Your task to perform on an android device: all mails in gmail Image 0: 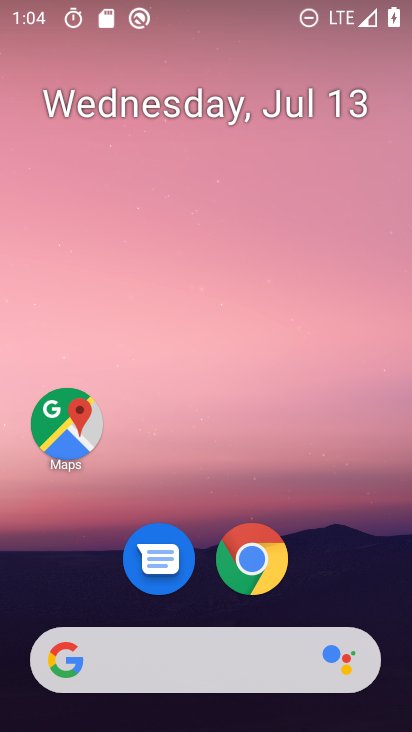
Step 0: drag from (180, 651) to (274, 290)
Your task to perform on an android device: all mails in gmail Image 1: 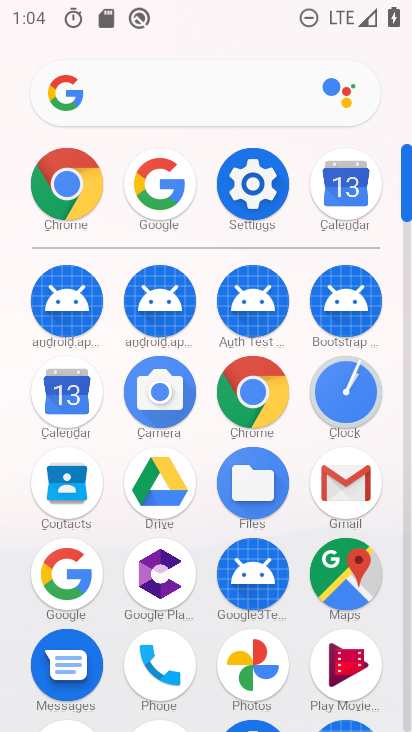
Step 1: click (358, 495)
Your task to perform on an android device: all mails in gmail Image 2: 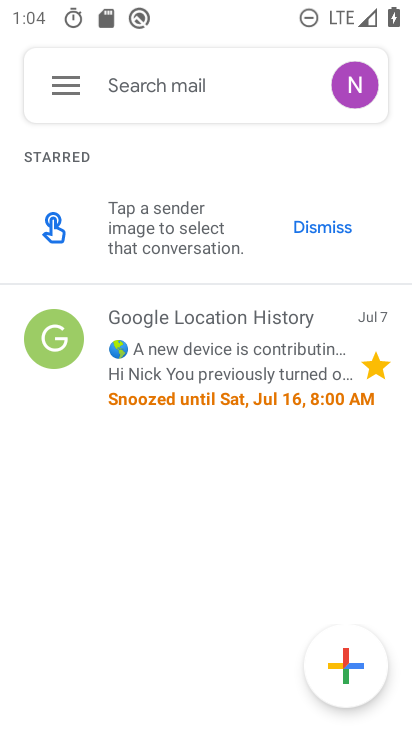
Step 2: click (55, 93)
Your task to perform on an android device: all mails in gmail Image 3: 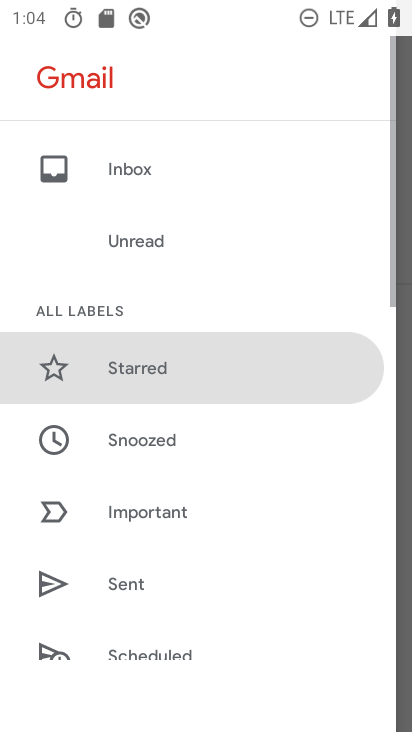
Step 3: drag from (161, 533) to (266, 164)
Your task to perform on an android device: all mails in gmail Image 4: 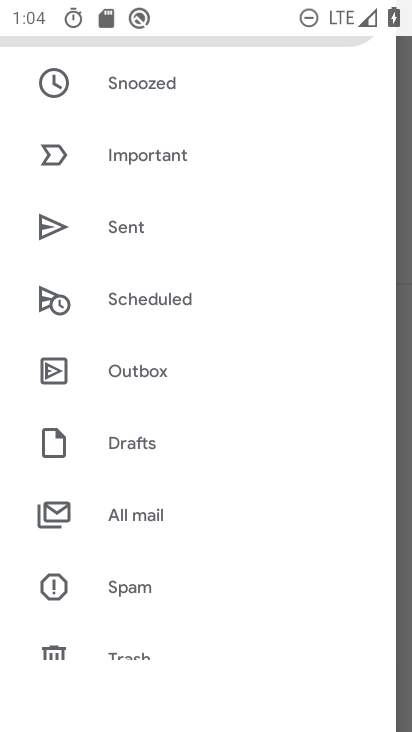
Step 4: click (165, 522)
Your task to perform on an android device: all mails in gmail Image 5: 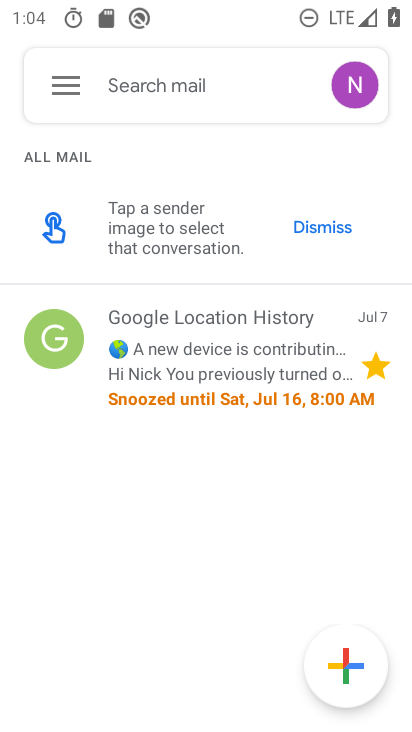
Step 5: task complete